Your task to perform on an android device: turn off location Image 0: 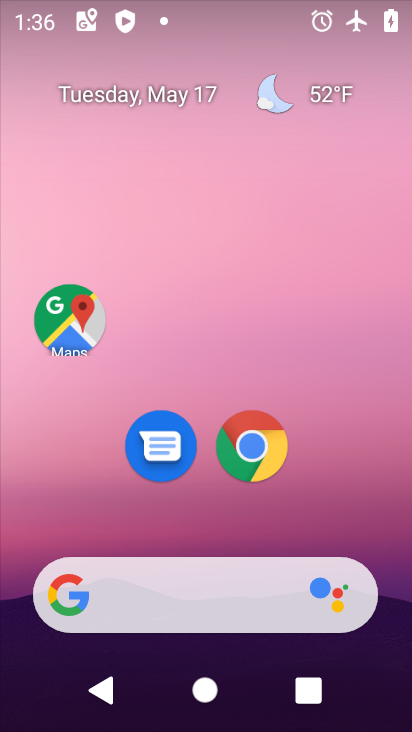
Step 0: drag from (218, 510) to (269, 196)
Your task to perform on an android device: turn off location Image 1: 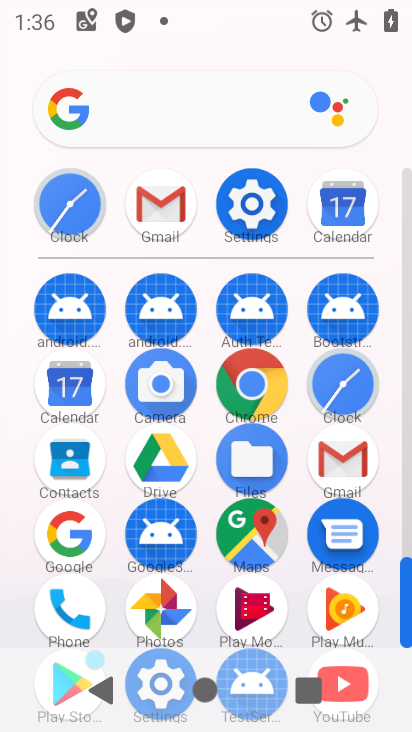
Step 1: click (260, 208)
Your task to perform on an android device: turn off location Image 2: 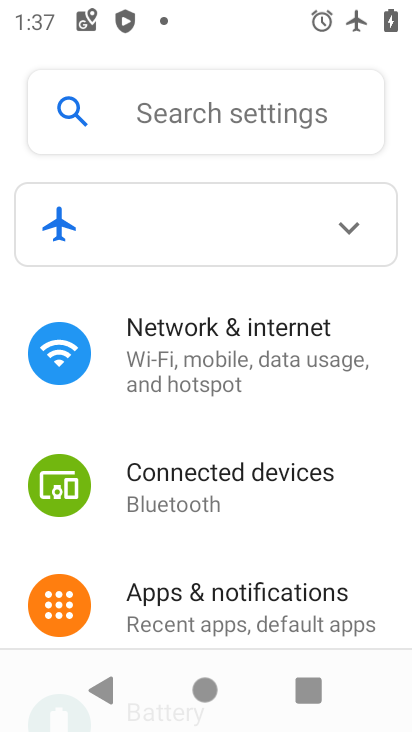
Step 2: drag from (233, 584) to (252, 307)
Your task to perform on an android device: turn off location Image 3: 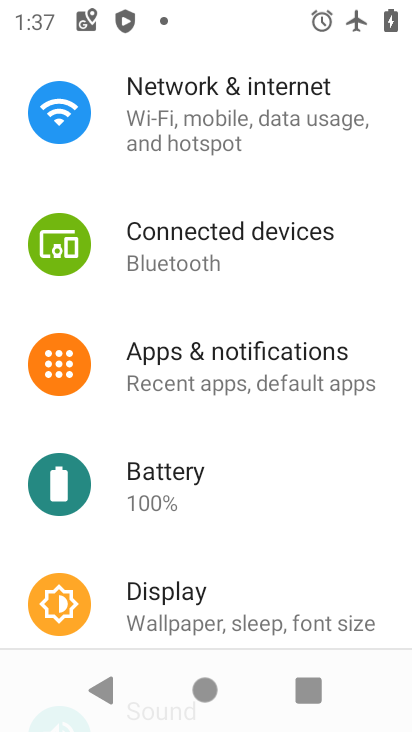
Step 3: drag from (216, 573) to (215, 315)
Your task to perform on an android device: turn off location Image 4: 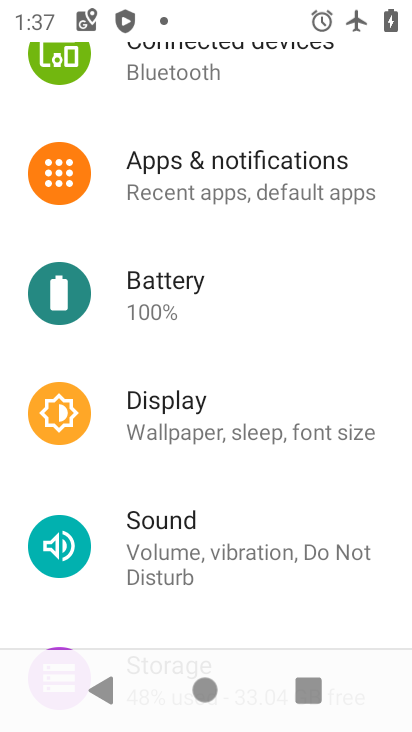
Step 4: drag from (194, 598) to (238, 351)
Your task to perform on an android device: turn off location Image 5: 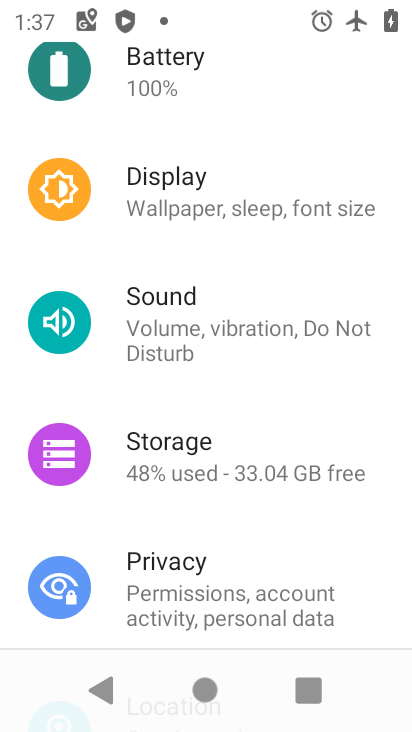
Step 5: drag from (214, 638) to (245, 406)
Your task to perform on an android device: turn off location Image 6: 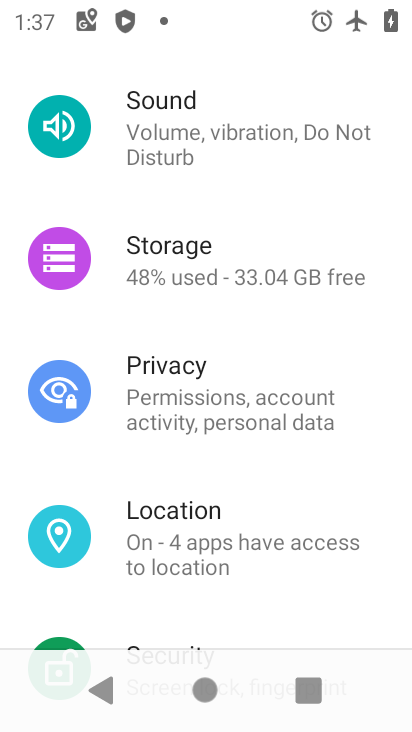
Step 6: click (191, 541)
Your task to perform on an android device: turn off location Image 7: 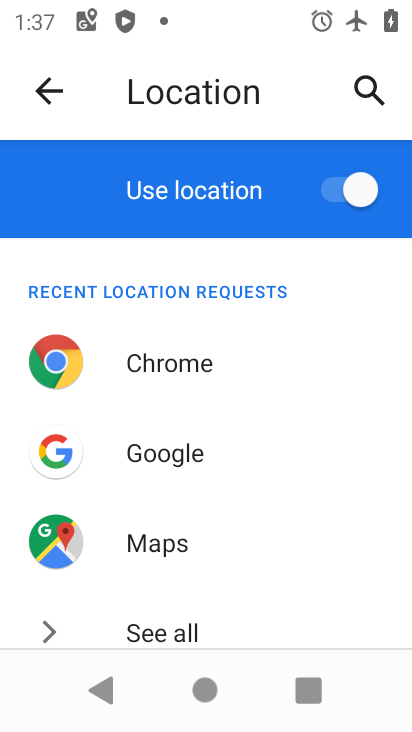
Step 7: click (330, 196)
Your task to perform on an android device: turn off location Image 8: 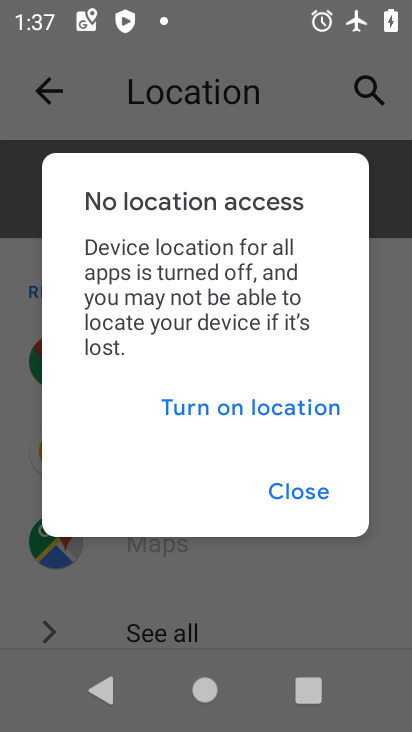
Step 8: task complete